Your task to perform on an android device: open wifi settings Image 0: 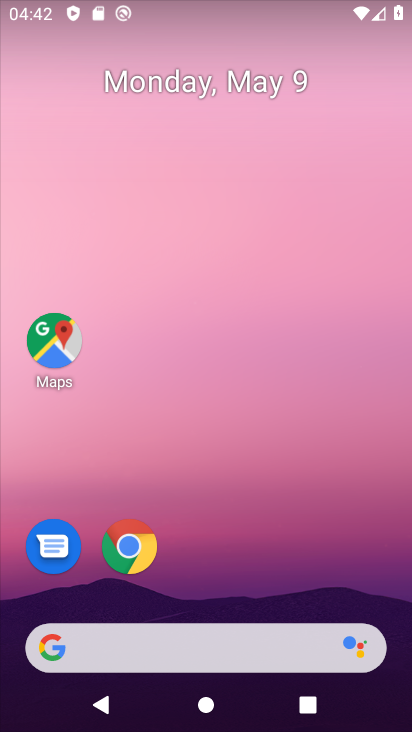
Step 0: drag from (220, 594) to (283, 62)
Your task to perform on an android device: open wifi settings Image 1: 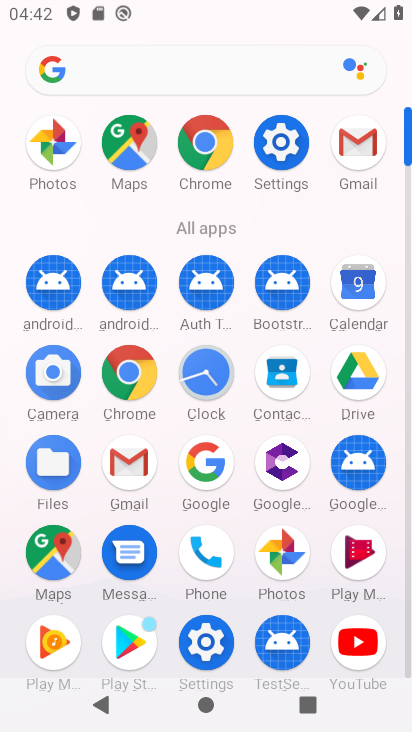
Step 1: click (280, 146)
Your task to perform on an android device: open wifi settings Image 2: 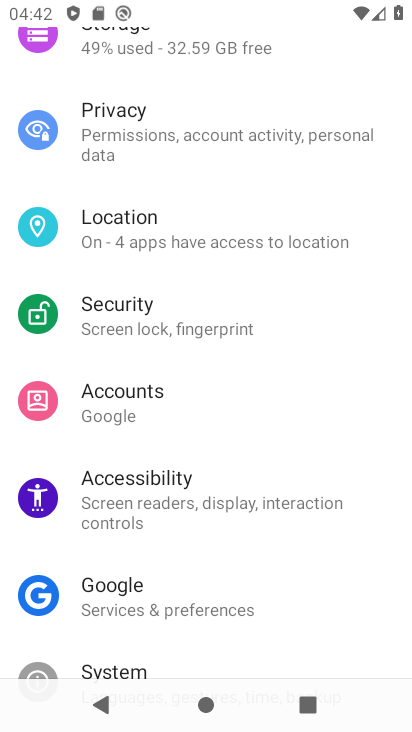
Step 2: drag from (214, 166) to (206, 534)
Your task to perform on an android device: open wifi settings Image 3: 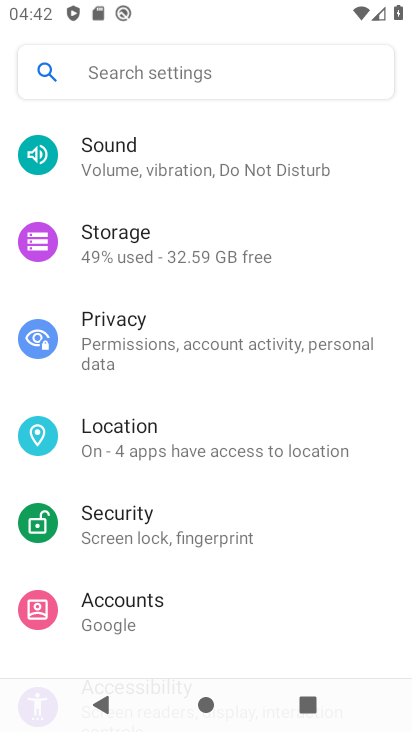
Step 3: drag from (216, 221) to (220, 670)
Your task to perform on an android device: open wifi settings Image 4: 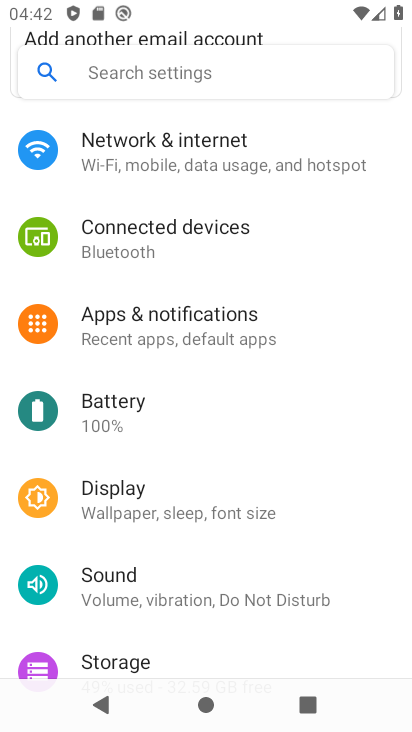
Step 4: click (195, 156)
Your task to perform on an android device: open wifi settings Image 5: 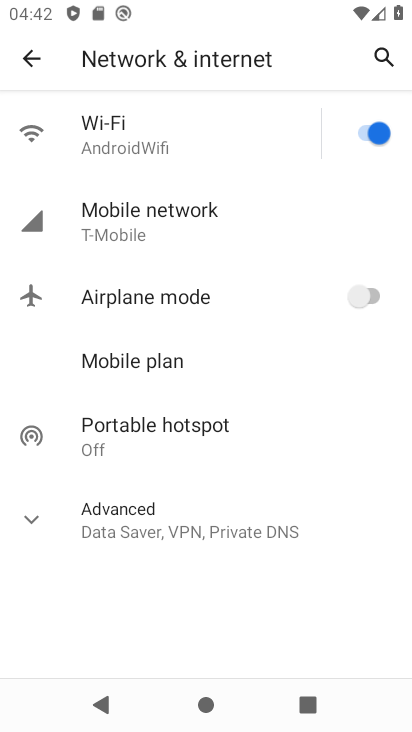
Step 5: click (123, 141)
Your task to perform on an android device: open wifi settings Image 6: 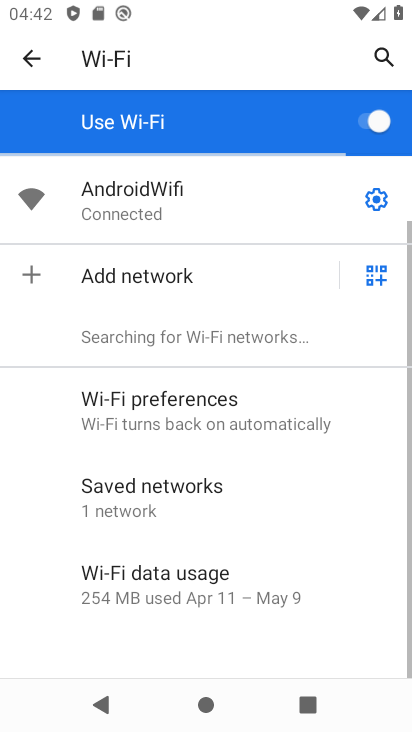
Step 6: task complete